Your task to perform on an android device: Turn on the flashlight Image 0: 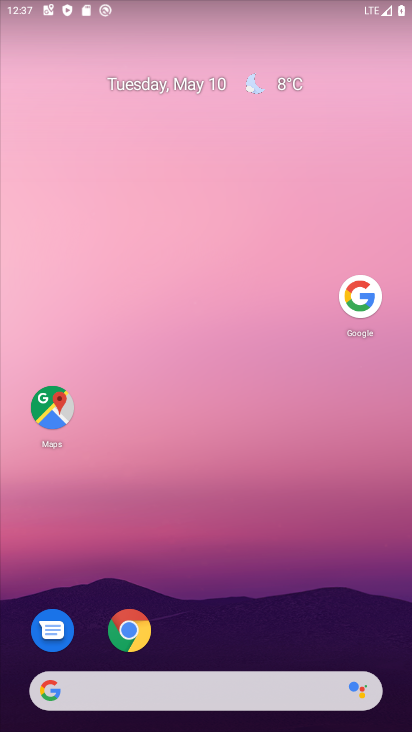
Step 0: drag from (269, 41) to (265, 295)
Your task to perform on an android device: Turn on the flashlight Image 1: 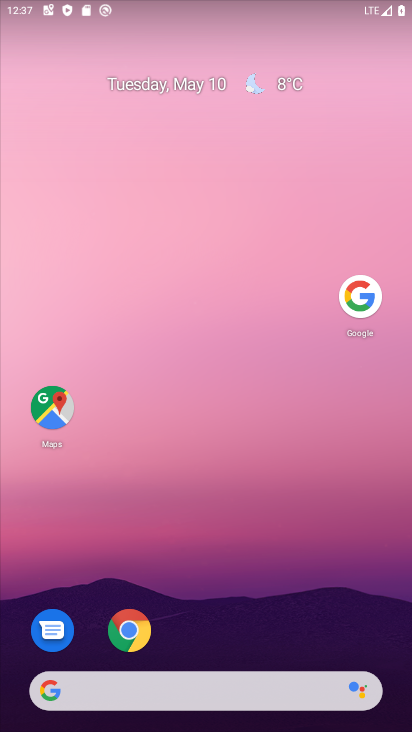
Step 1: task complete